Your task to perform on an android device: search for starred emails in the gmail app Image 0: 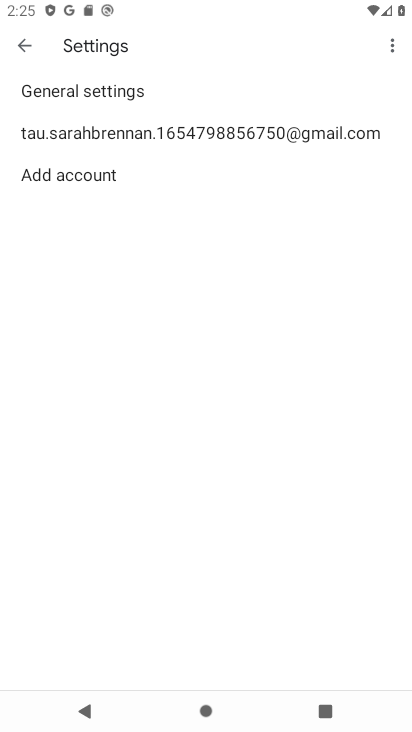
Step 0: press home button
Your task to perform on an android device: search for starred emails in the gmail app Image 1: 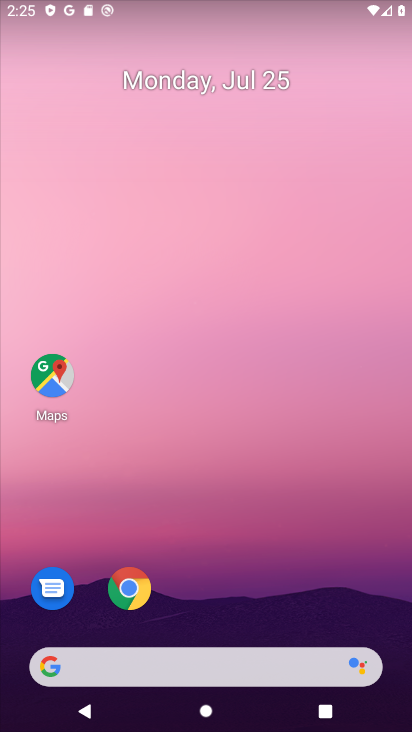
Step 1: drag from (200, 613) to (232, 67)
Your task to perform on an android device: search for starred emails in the gmail app Image 2: 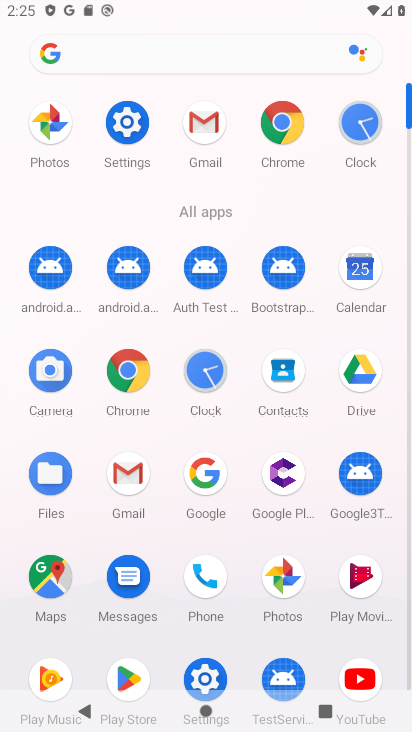
Step 2: click (203, 108)
Your task to perform on an android device: search for starred emails in the gmail app Image 3: 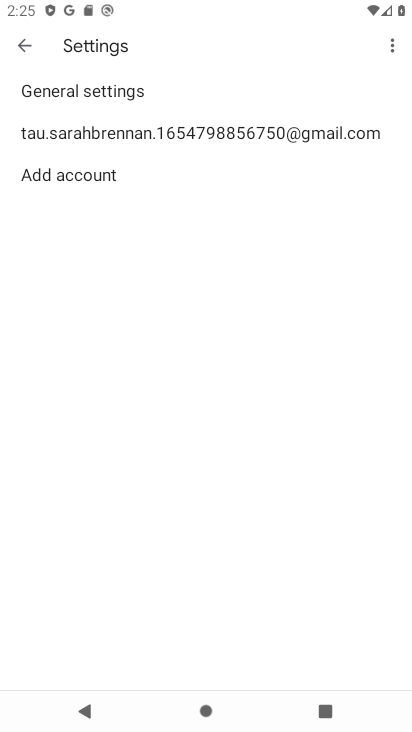
Step 3: click (28, 42)
Your task to perform on an android device: search for starred emails in the gmail app Image 4: 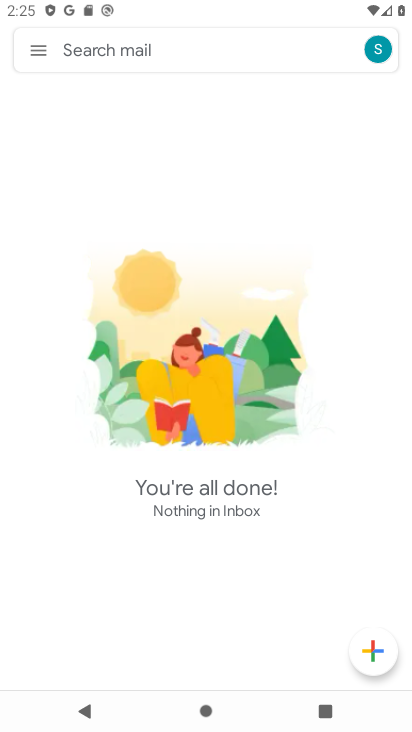
Step 4: click (42, 49)
Your task to perform on an android device: search for starred emails in the gmail app Image 5: 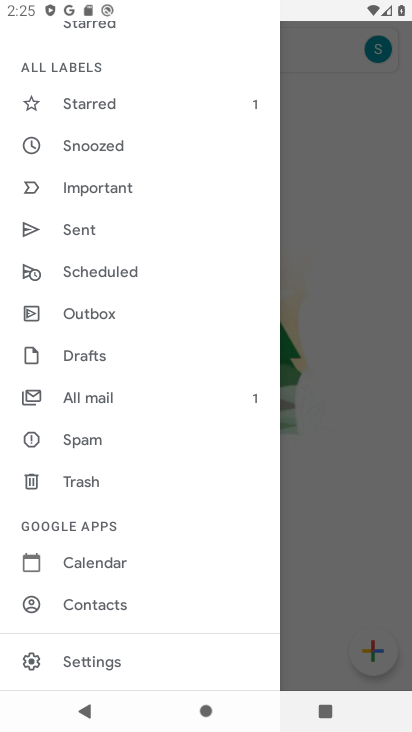
Step 5: click (102, 102)
Your task to perform on an android device: search for starred emails in the gmail app Image 6: 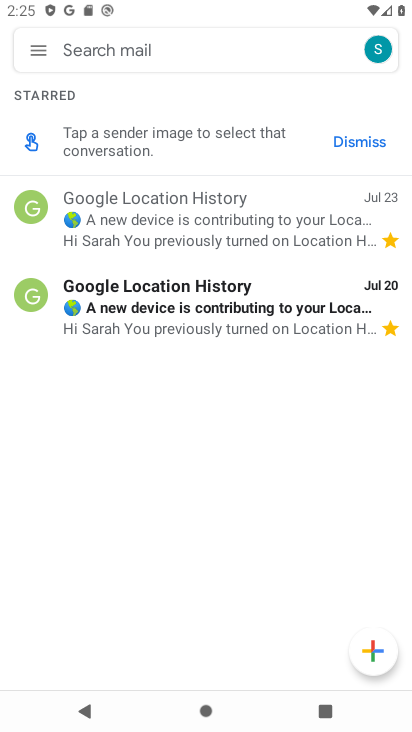
Step 6: task complete